Your task to perform on an android device: set the timer Image 0: 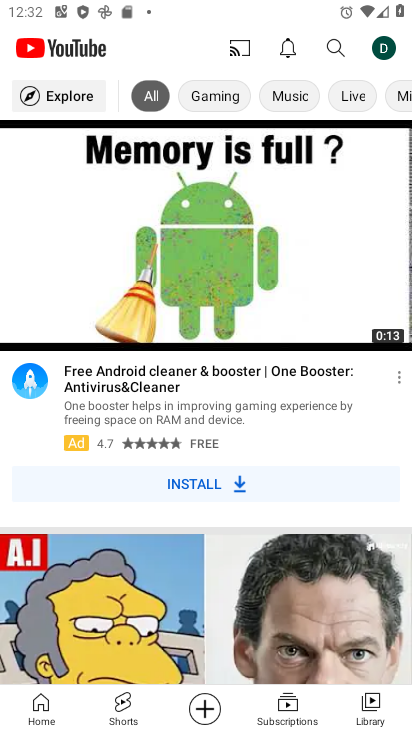
Step 0: press home button
Your task to perform on an android device: set the timer Image 1: 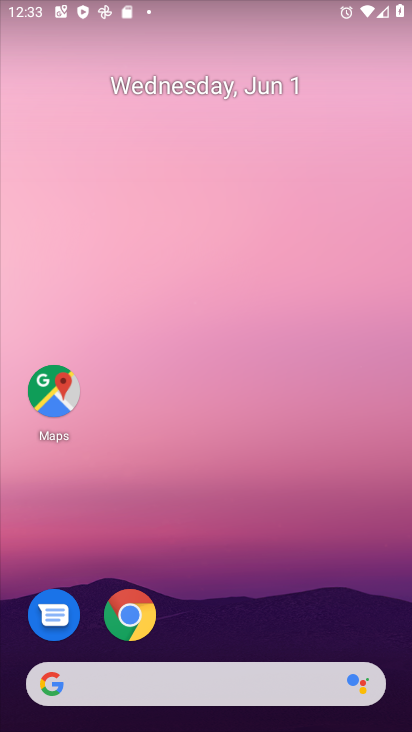
Step 1: drag from (296, 393) to (360, 74)
Your task to perform on an android device: set the timer Image 2: 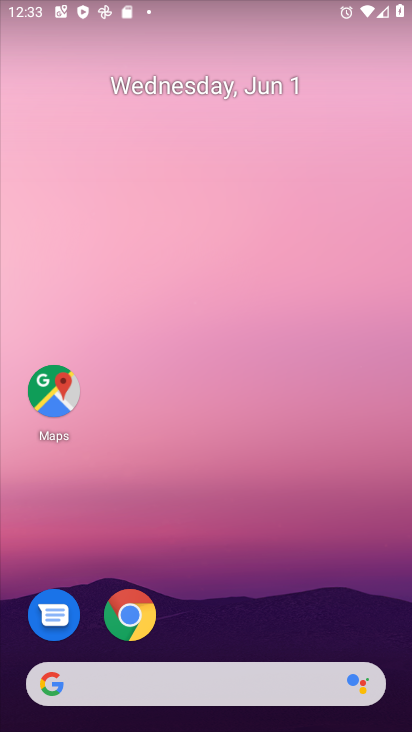
Step 2: drag from (321, 537) to (321, 7)
Your task to perform on an android device: set the timer Image 3: 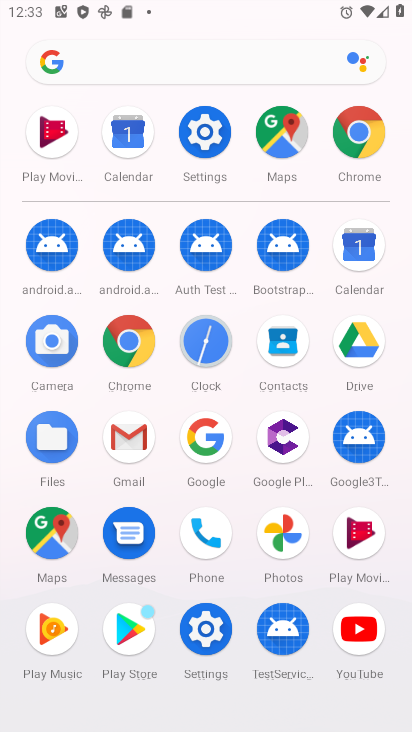
Step 3: click (208, 345)
Your task to perform on an android device: set the timer Image 4: 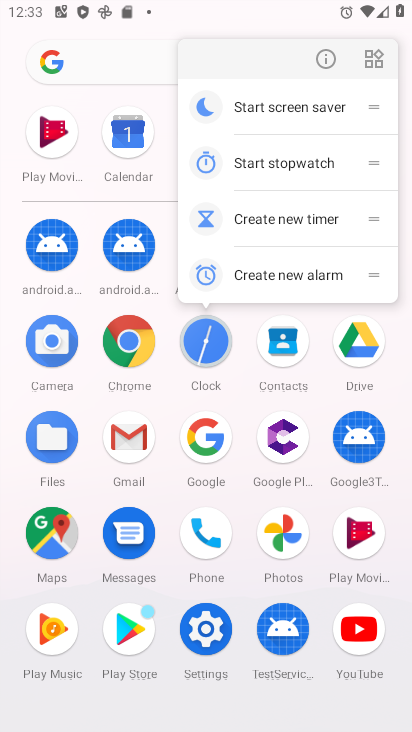
Step 4: click (208, 345)
Your task to perform on an android device: set the timer Image 5: 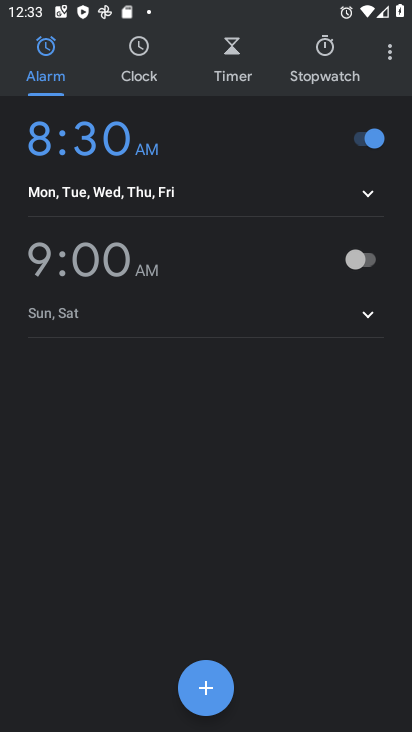
Step 5: click (218, 57)
Your task to perform on an android device: set the timer Image 6: 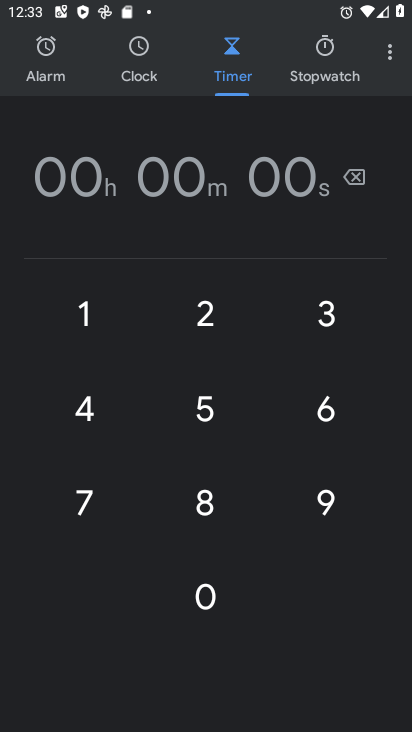
Step 6: click (73, 310)
Your task to perform on an android device: set the timer Image 7: 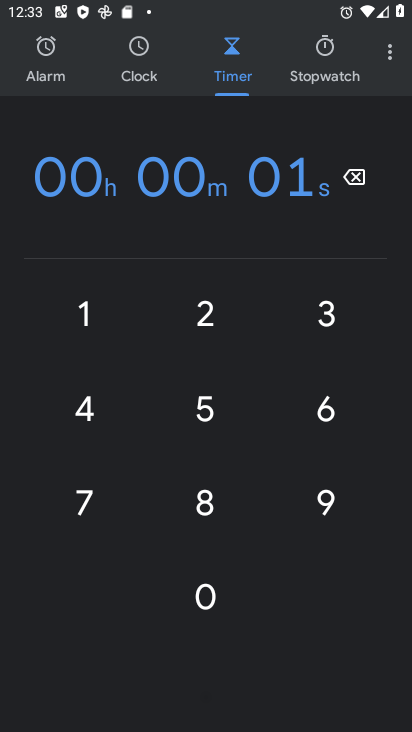
Step 7: click (75, 384)
Your task to perform on an android device: set the timer Image 8: 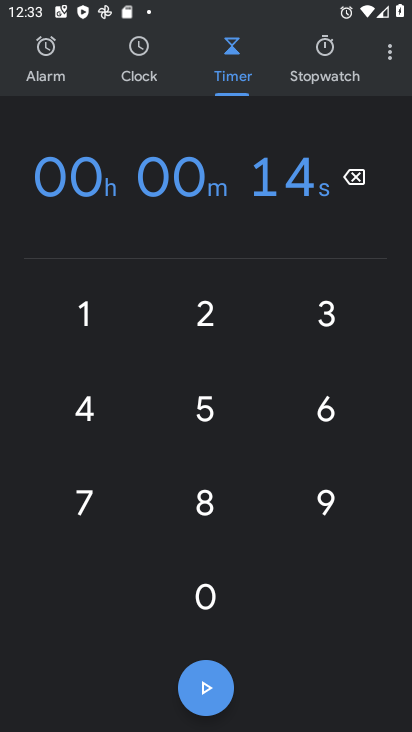
Step 8: click (96, 294)
Your task to perform on an android device: set the timer Image 9: 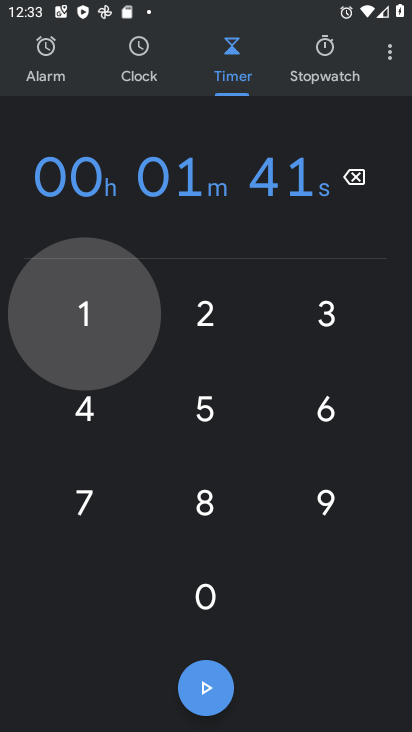
Step 9: click (81, 392)
Your task to perform on an android device: set the timer Image 10: 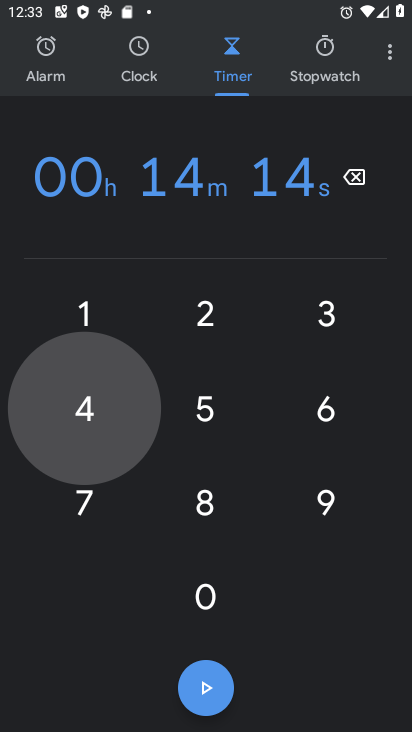
Step 10: click (105, 312)
Your task to perform on an android device: set the timer Image 11: 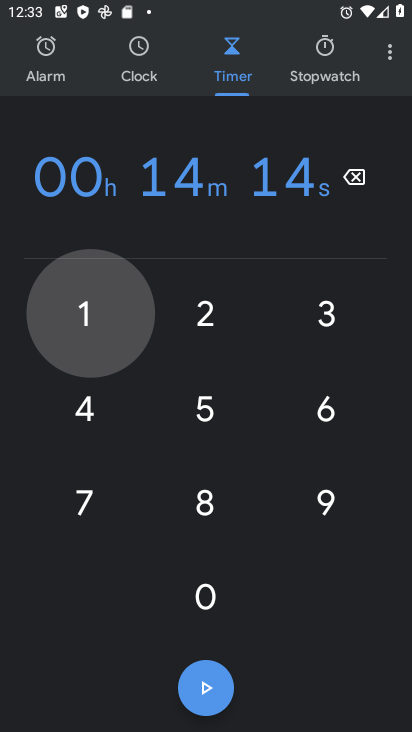
Step 11: click (90, 398)
Your task to perform on an android device: set the timer Image 12: 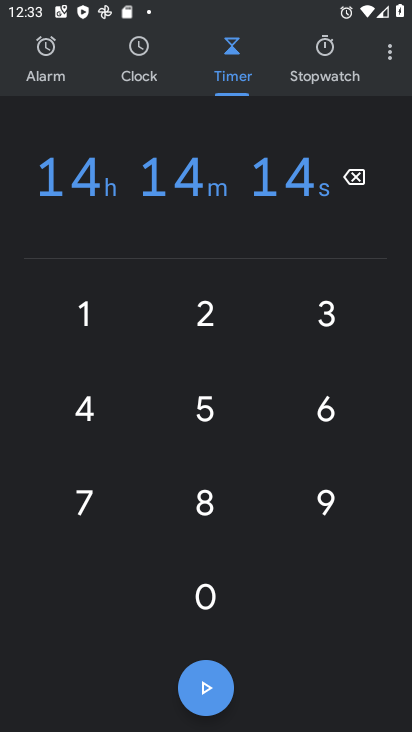
Step 12: click (211, 681)
Your task to perform on an android device: set the timer Image 13: 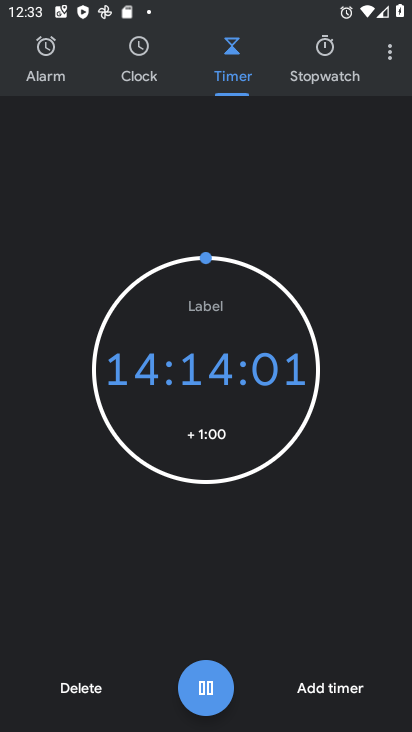
Step 13: task complete